Your task to perform on an android device: Show me the alarms in the clock app Image 0: 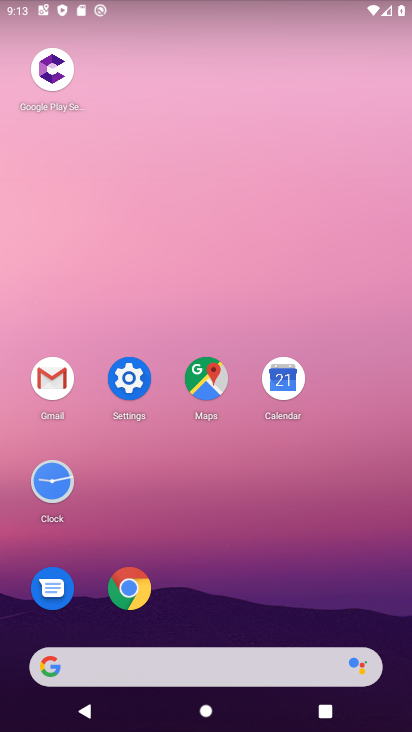
Step 0: click (61, 485)
Your task to perform on an android device: Show me the alarms in the clock app Image 1: 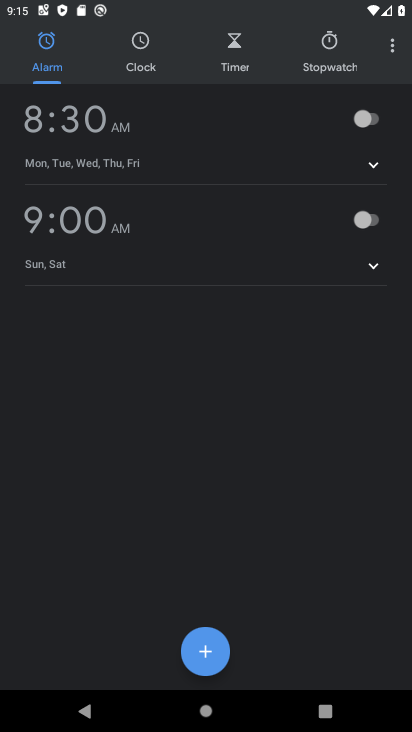
Step 1: task complete